Your task to perform on an android device: toggle show notifications on the lock screen Image 0: 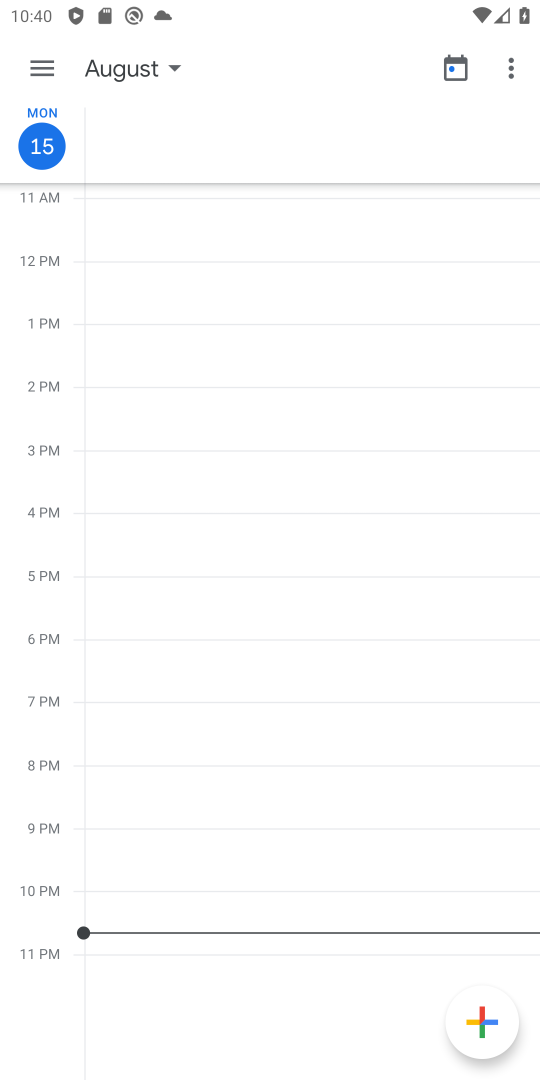
Step 0: press home button
Your task to perform on an android device: toggle show notifications on the lock screen Image 1: 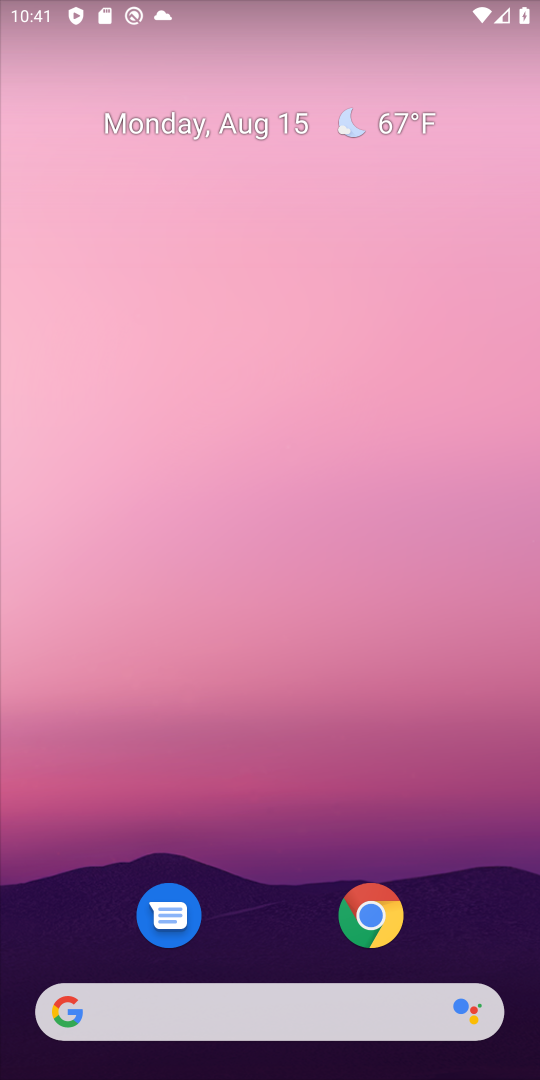
Step 1: drag from (456, 855) to (369, 401)
Your task to perform on an android device: toggle show notifications on the lock screen Image 2: 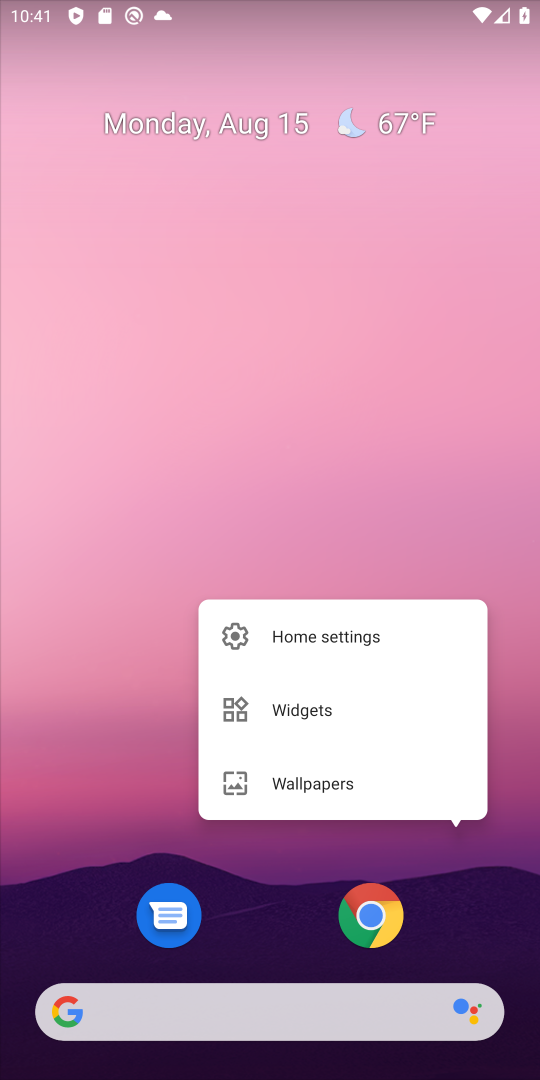
Step 2: drag from (246, 459) to (290, 6)
Your task to perform on an android device: toggle show notifications on the lock screen Image 3: 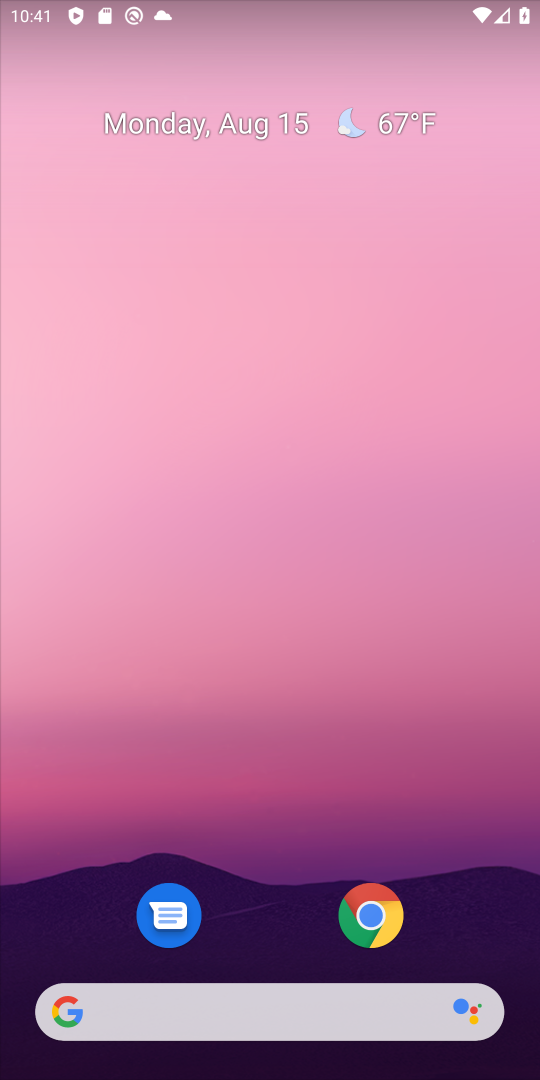
Step 3: drag from (498, 901) to (374, 4)
Your task to perform on an android device: toggle show notifications on the lock screen Image 4: 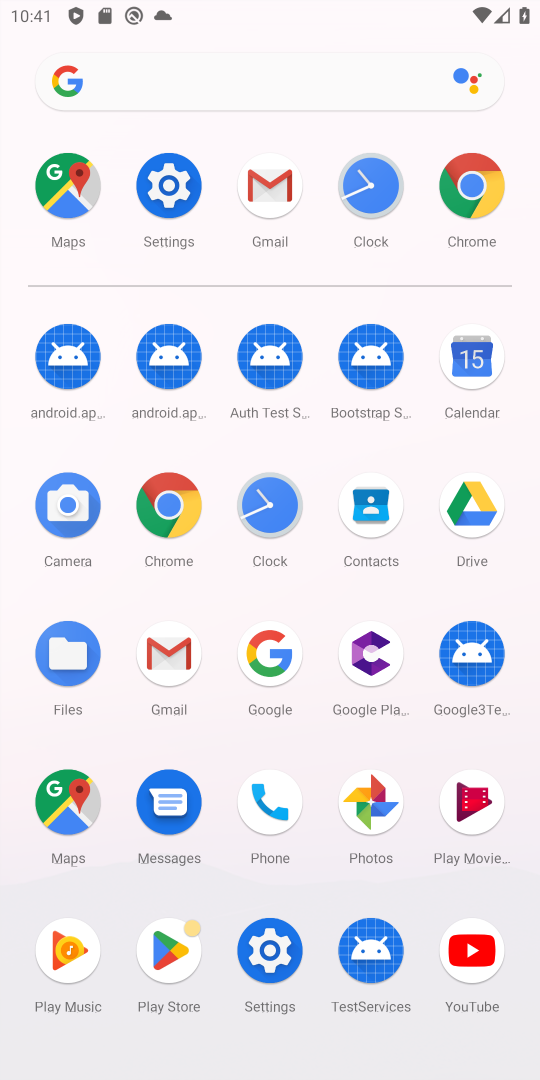
Step 4: click (252, 942)
Your task to perform on an android device: toggle show notifications on the lock screen Image 5: 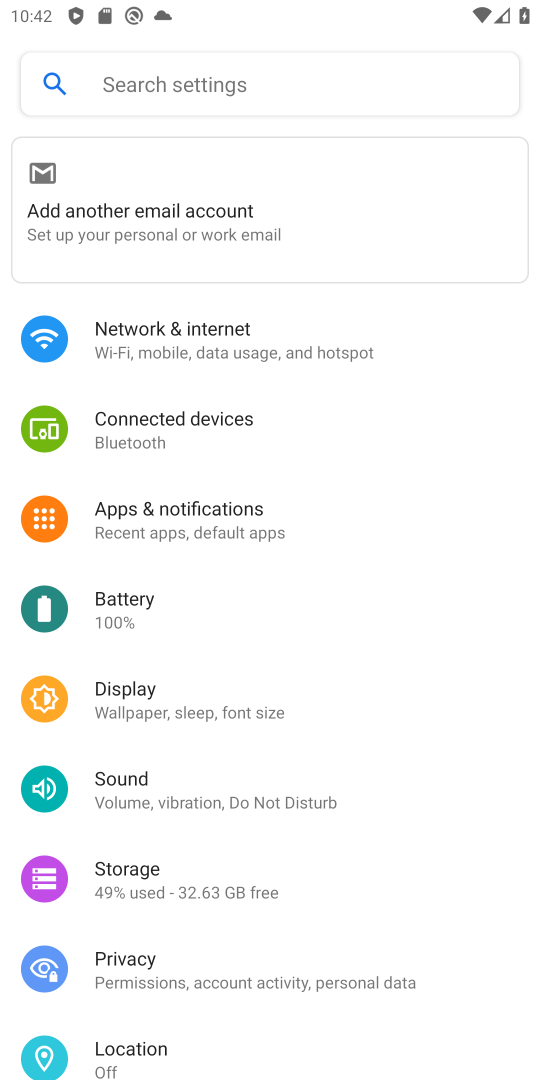
Step 5: drag from (222, 530) to (528, 517)
Your task to perform on an android device: toggle show notifications on the lock screen Image 6: 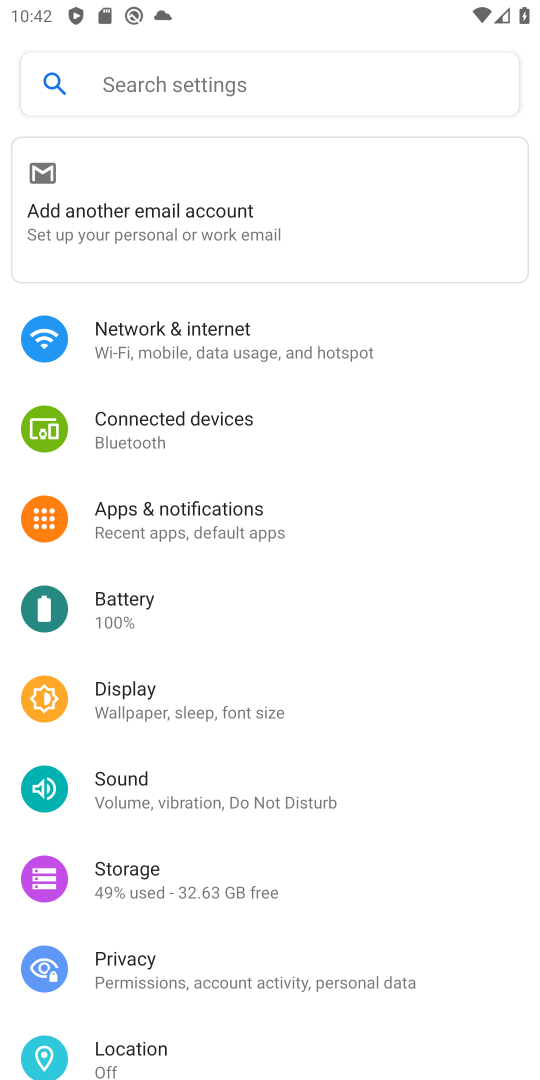
Step 6: click (475, 510)
Your task to perform on an android device: toggle show notifications on the lock screen Image 7: 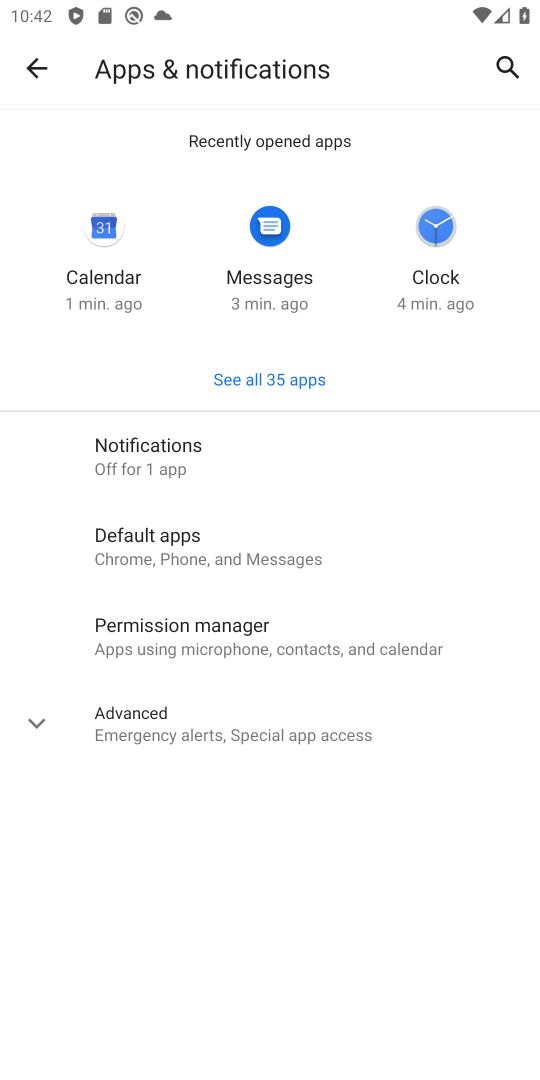
Step 7: click (198, 461)
Your task to perform on an android device: toggle show notifications on the lock screen Image 8: 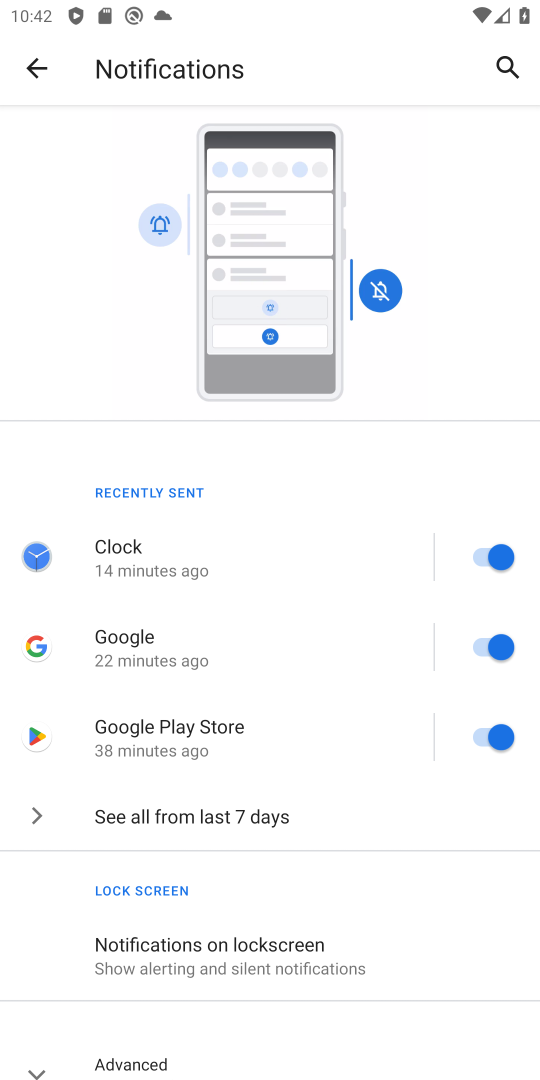
Step 8: click (379, 965)
Your task to perform on an android device: toggle show notifications on the lock screen Image 9: 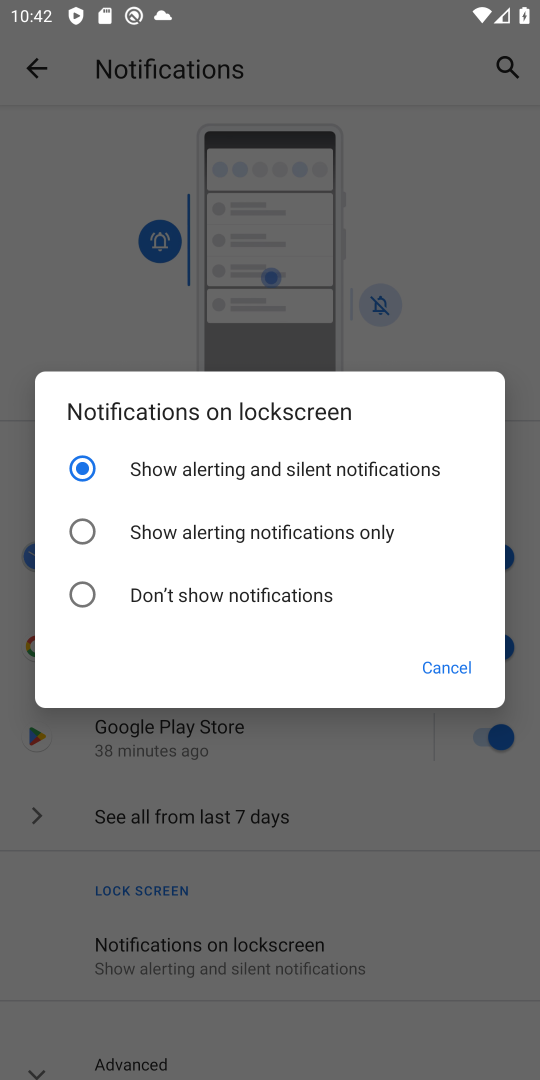
Step 9: click (72, 595)
Your task to perform on an android device: toggle show notifications on the lock screen Image 10: 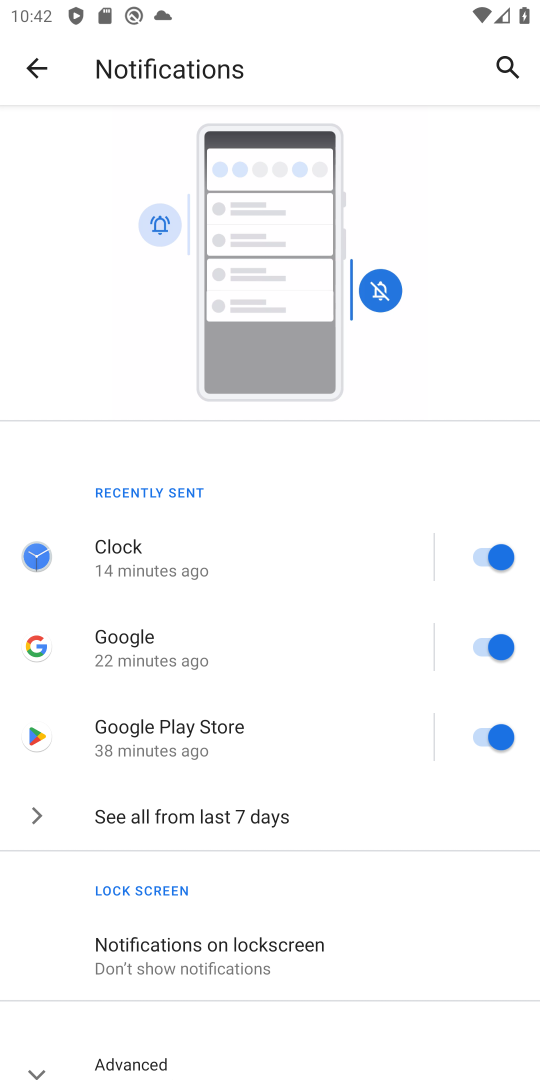
Step 10: task complete